Your task to perform on an android device: Go to Android settings Image 0: 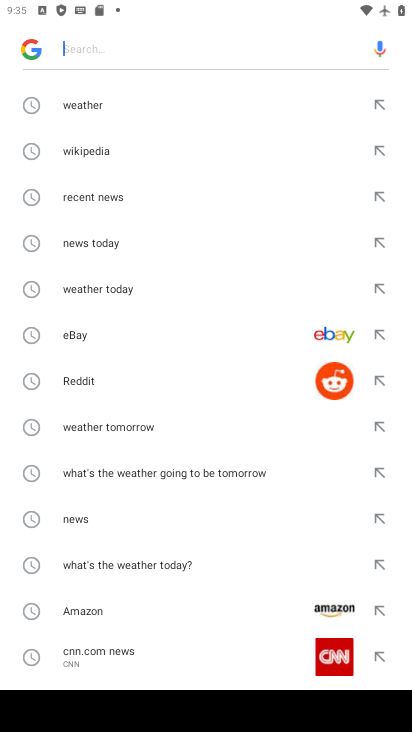
Step 0: press home button
Your task to perform on an android device: Go to Android settings Image 1: 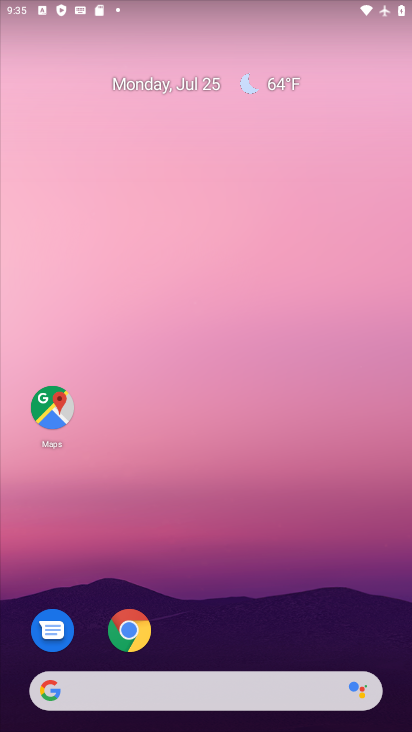
Step 1: drag from (356, 639) to (277, 124)
Your task to perform on an android device: Go to Android settings Image 2: 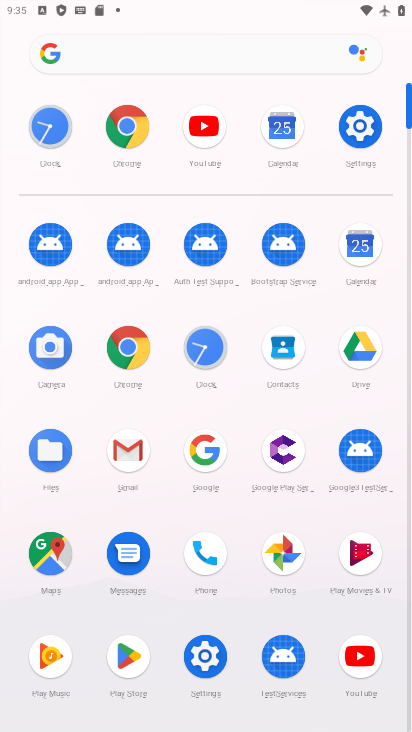
Step 2: click (203, 657)
Your task to perform on an android device: Go to Android settings Image 3: 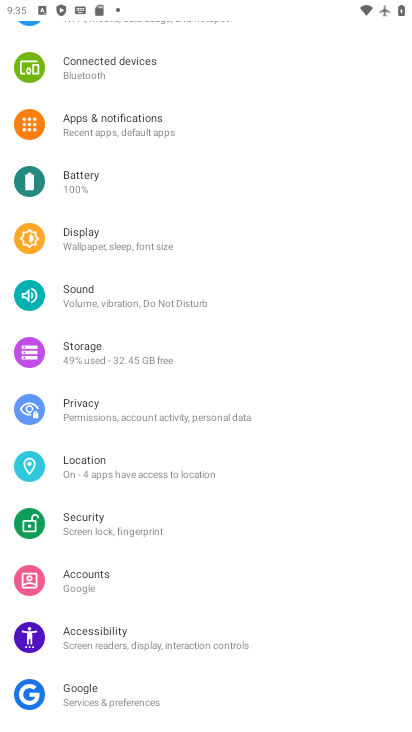
Step 3: drag from (244, 690) to (247, 305)
Your task to perform on an android device: Go to Android settings Image 4: 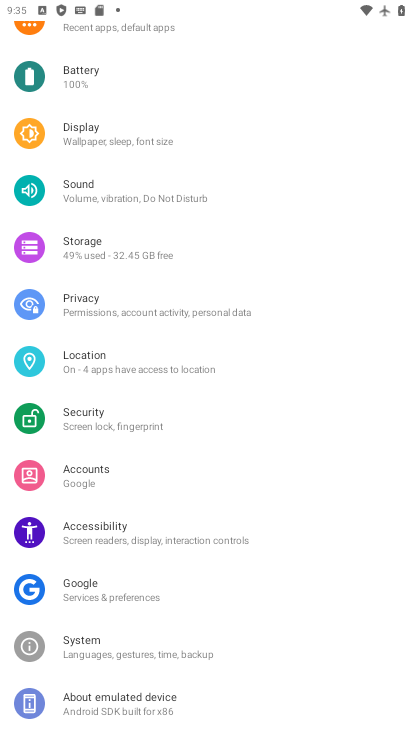
Step 4: click (88, 701)
Your task to perform on an android device: Go to Android settings Image 5: 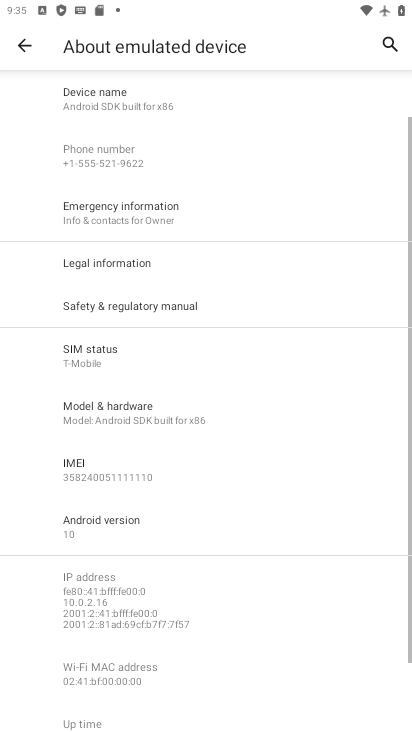
Step 5: task complete